Your task to perform on an android device: find photos in the google photos app Image 0: 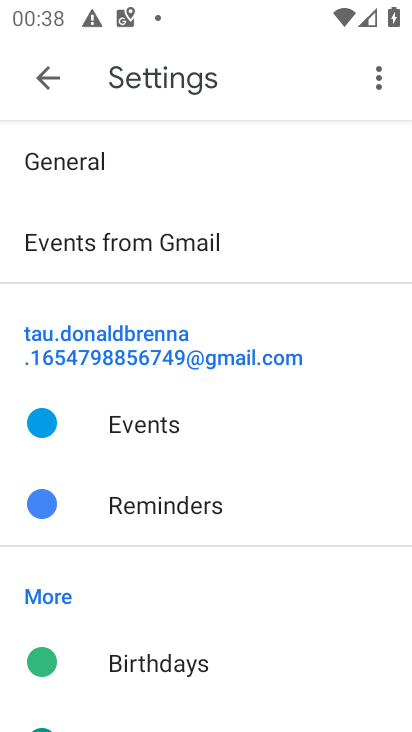
Step 0: press home button
Your task to perform on an android device: find photos in the google photos app Image 1: 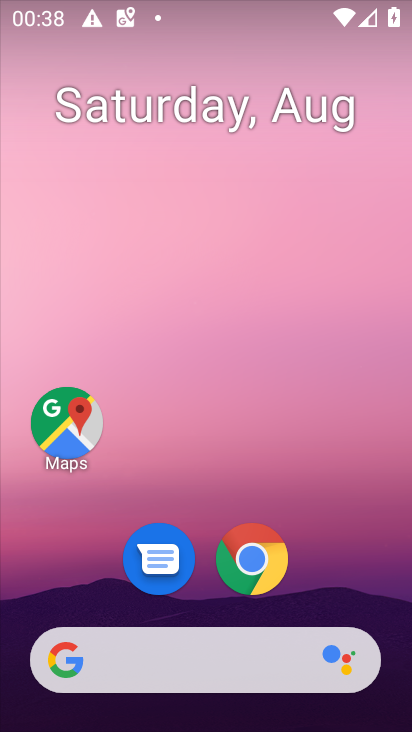
Step 1: drag from (393, 613) to (258, 101)
Your task to perform on an android device: find photos in the google photos app Image 2: 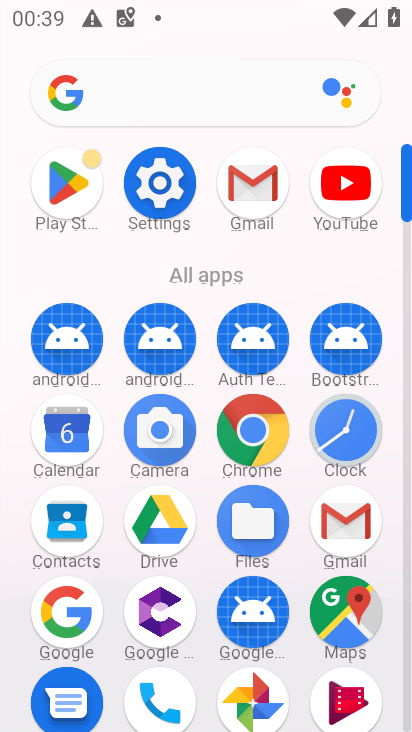
Step 2: click (253, 713)
Your task to perform on an android device: find photos in the google photos app Image 3: 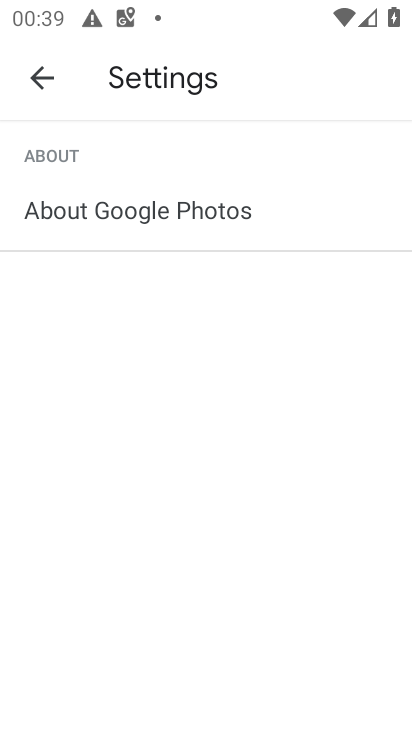
Step 3: press back button
Your task to perform on an android device: find photos in the google photos app Image 4: 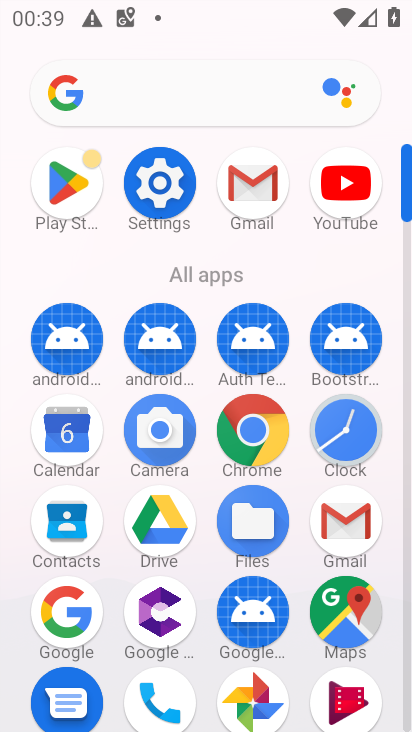
Step 4: click (255, 703)
Your task to perform on an android device: find photos in the google photos app Image 5: 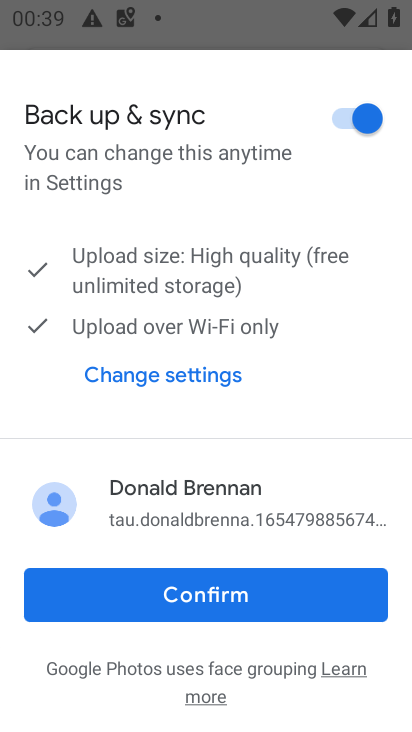
Step 5: click (303, 579)
Your task to perform on an android device: find photos in the google photos app Image 6: 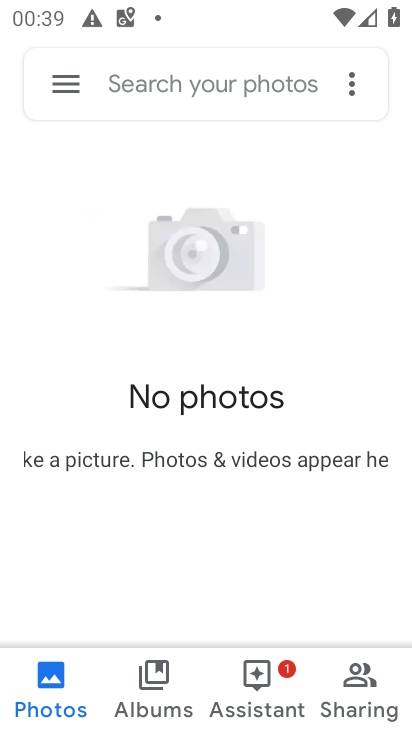
Step 6: task complete